Your task to perform on an android device: Go to Wikipedia Image 0: 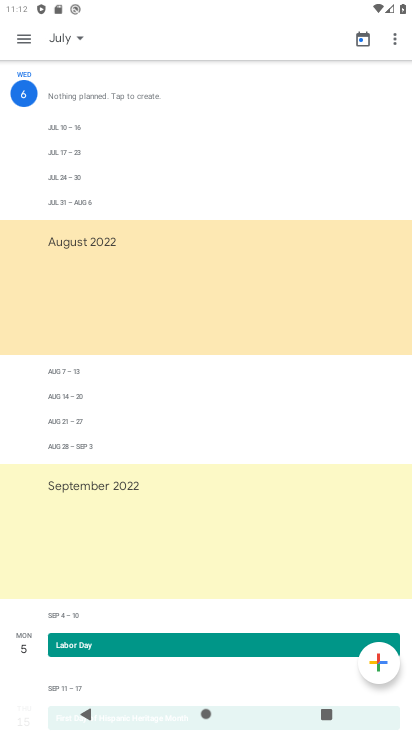
Step 0: press home button
Your task to perform on an android device: Go to Wikipedia Image 1: 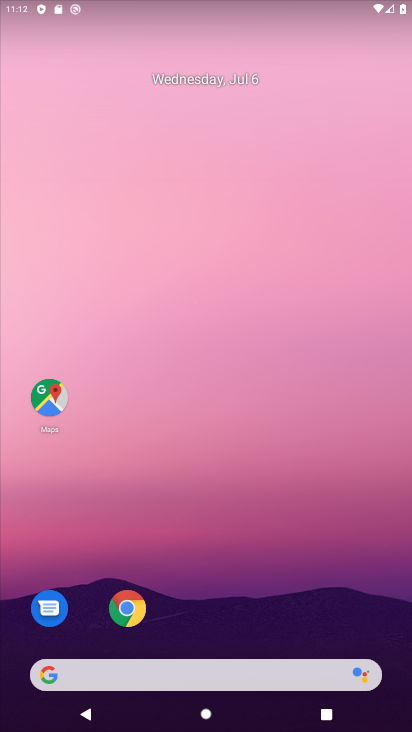
Step 1: drag from (285, 621) to (254, 96)
Your task to perform on an android device: Go to Wikipedia Image 2: 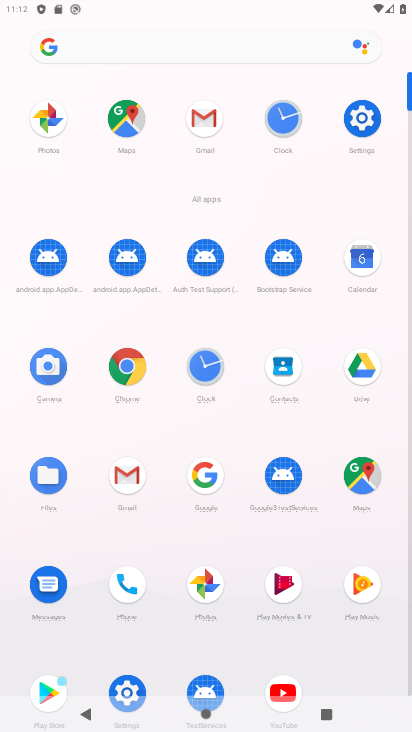
Step 2: click (128, 361)
Your task to perform on an android device: Go to Wikipedia Image 3: 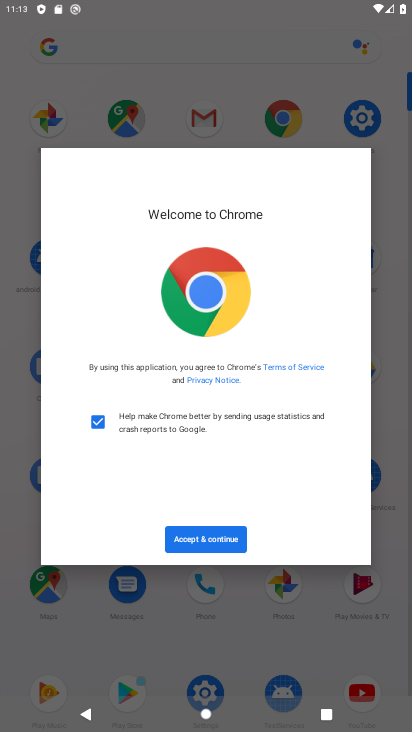
Step 3: click (208, 540)
Your task to perform on an android device: Go to Wikipedia Image 4: 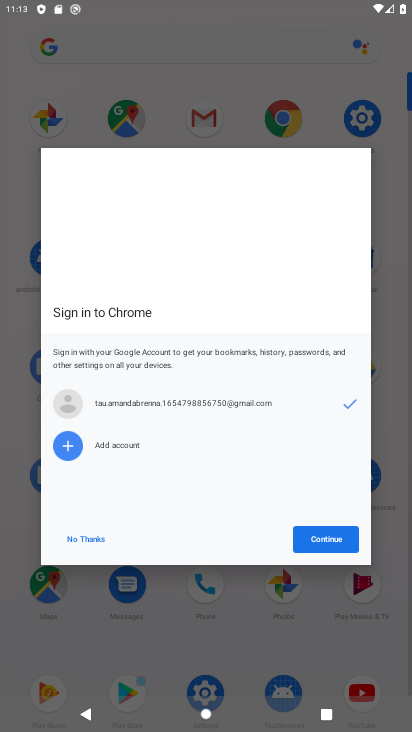
Step 4: click (345, 537)
Your task to perform on an android device: Go to Wikipedia Image 5: 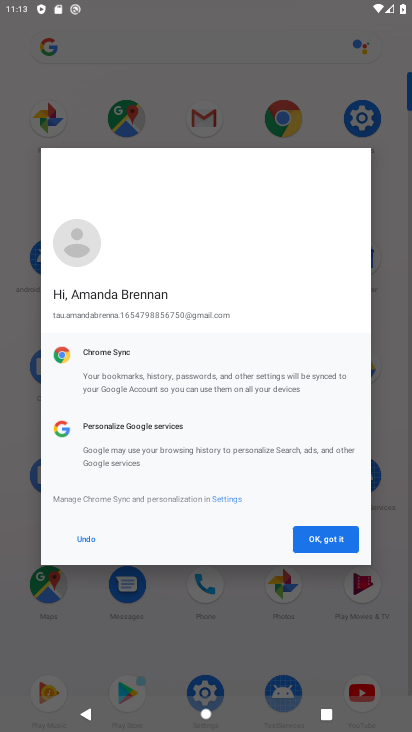
Step 5: click (325, 534)
Your task to perform on an android device: Go to Wikipedia Image 6: 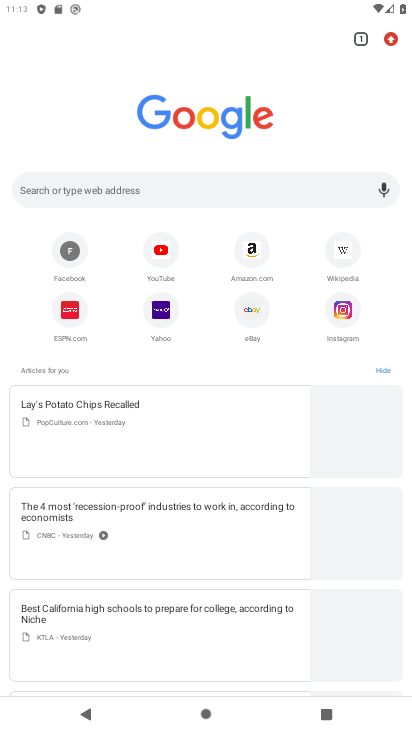
Step 6: click (344, 245)
Your task to perform on an android device: Go to Wikipedia Image 7: 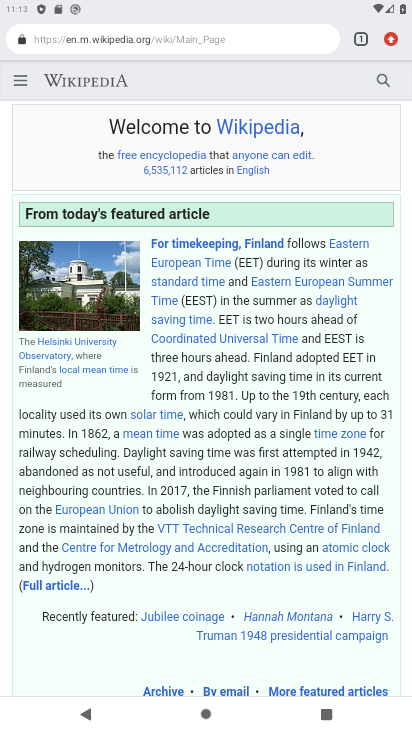
Step 7: task complete